Your task to perform on an android device: Open the map Image 0: 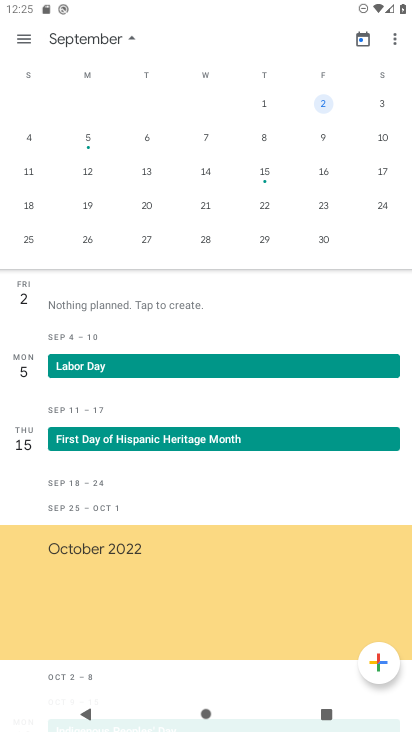
Step 0: press home button
Your task to perform on an android device: Open the map Image 1: 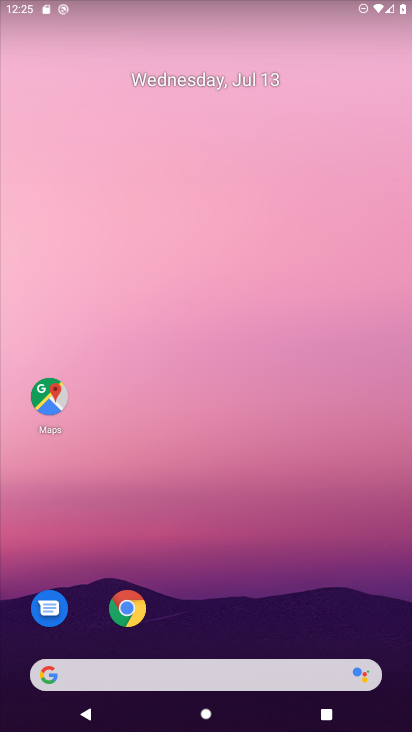
Step 1: click (53, 406)
Your task to perform on an android device: Open the map Image 2: 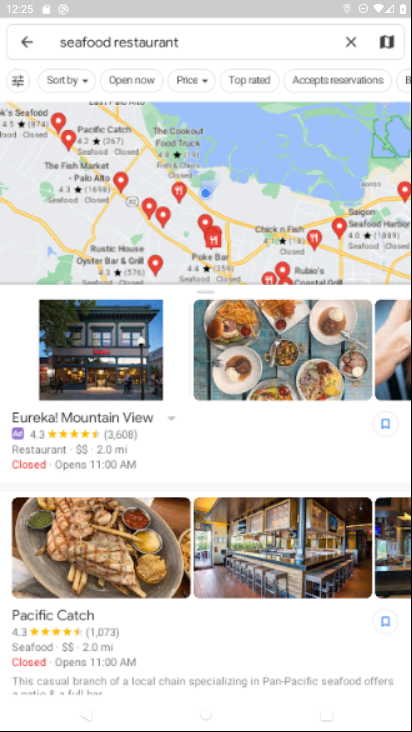
Step 2: task complete